Your task to perform on an android device: change the clock style Image 0: 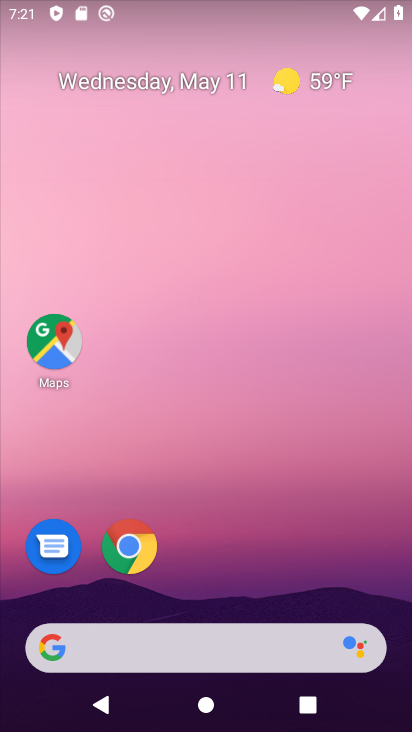
Step 0: drag from (302, 552) to (296, 166)
Your task to perform on an android device: change the clock style Image 1: 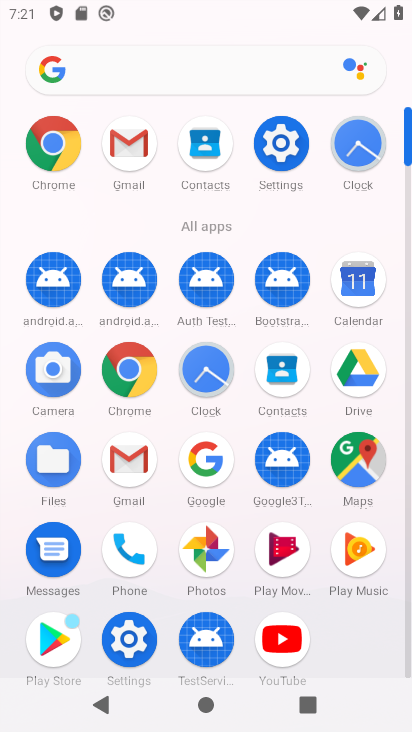
Step 1: click (206, 371)
Your task to perform on an android device: change the clock style Image 2: 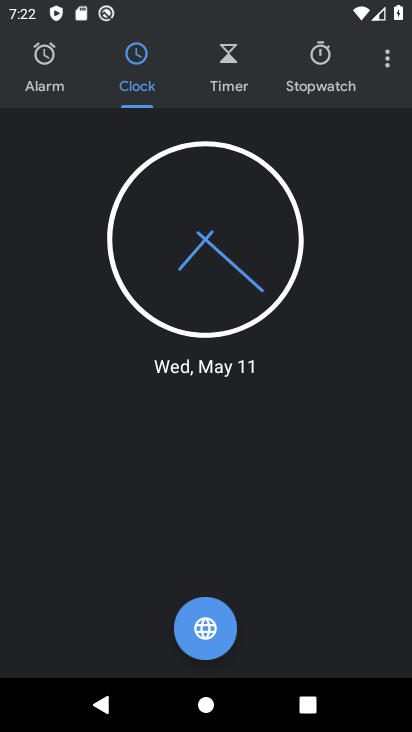
Step 2: click (389, 57)
Your task to perform on an android device: change the clock style Image 3: 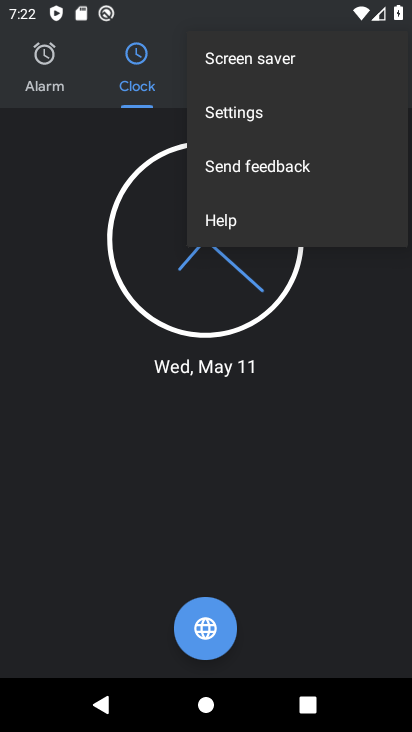
Step 3: click (291, 108)
Your task to perform on an android device: change the clock style Image 4: 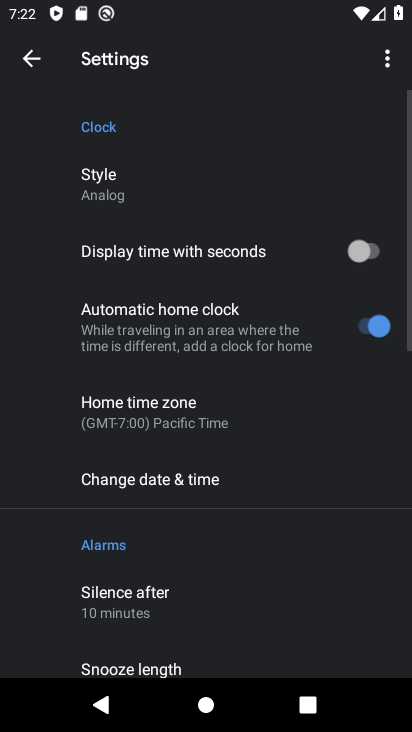
Step 4: click (167, 179)
Your task to perform on an android device: change the clock style Image 5: 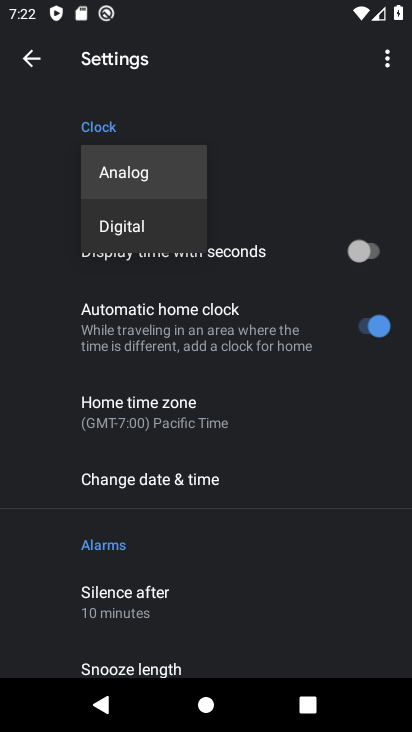
Step 5: click (153, 228)
Your task to perform on an android device: change the clock style Image 6: 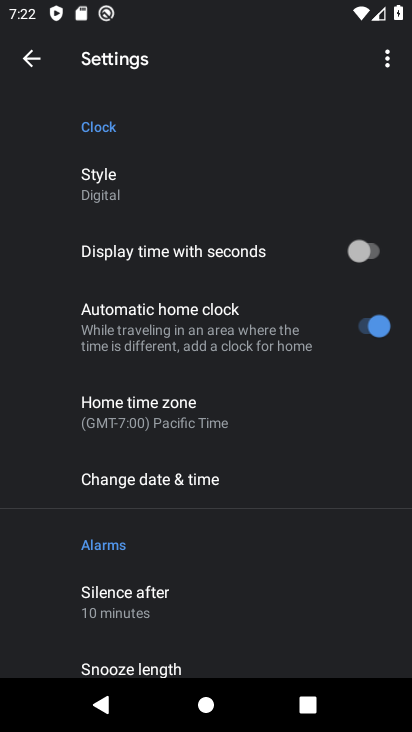
Step 6: task complete